Your task to perform on an android device: Add logitech g933 to the cart on bestbuy.com, then select checkout. Image 0: 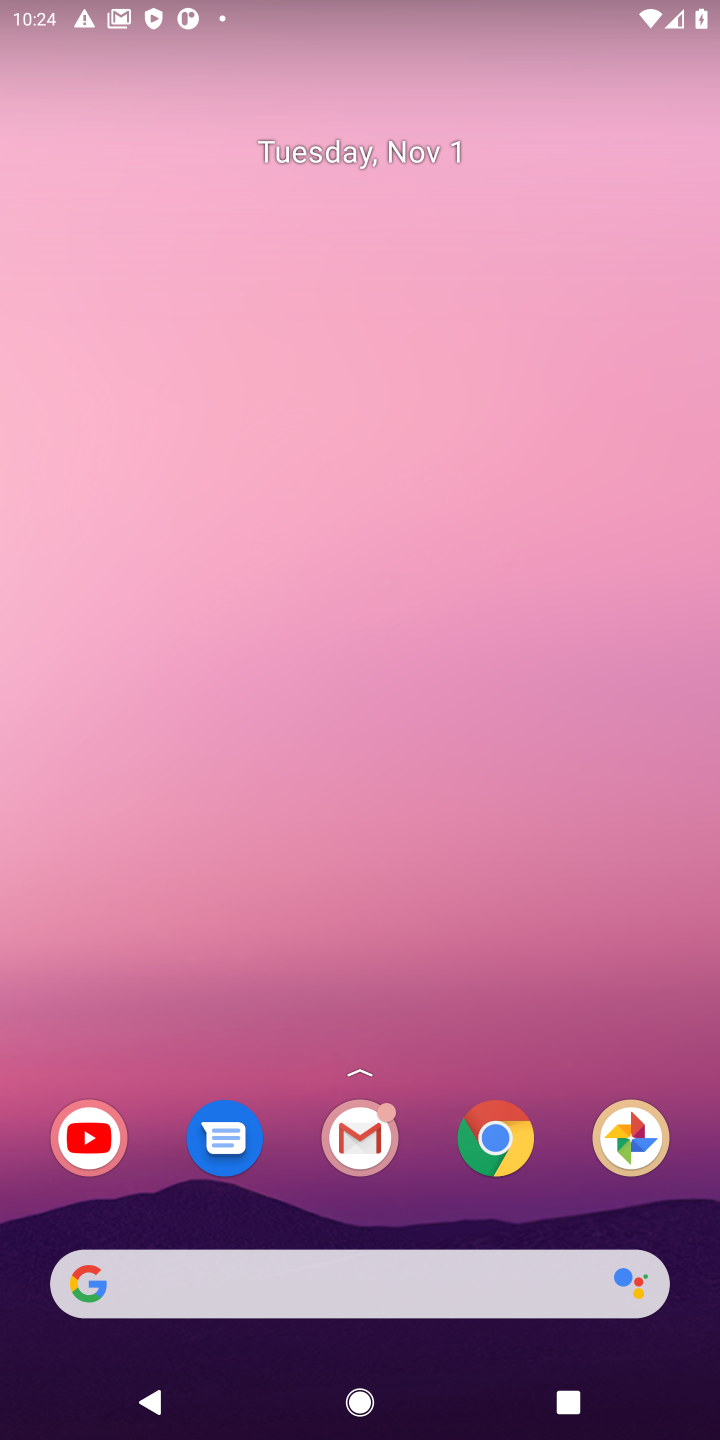
Step 0: click (508, 1147)
Your task to perform on an android device: Add logitech g933 to the cart on bestbuy.com, then select checkout. Image 1: 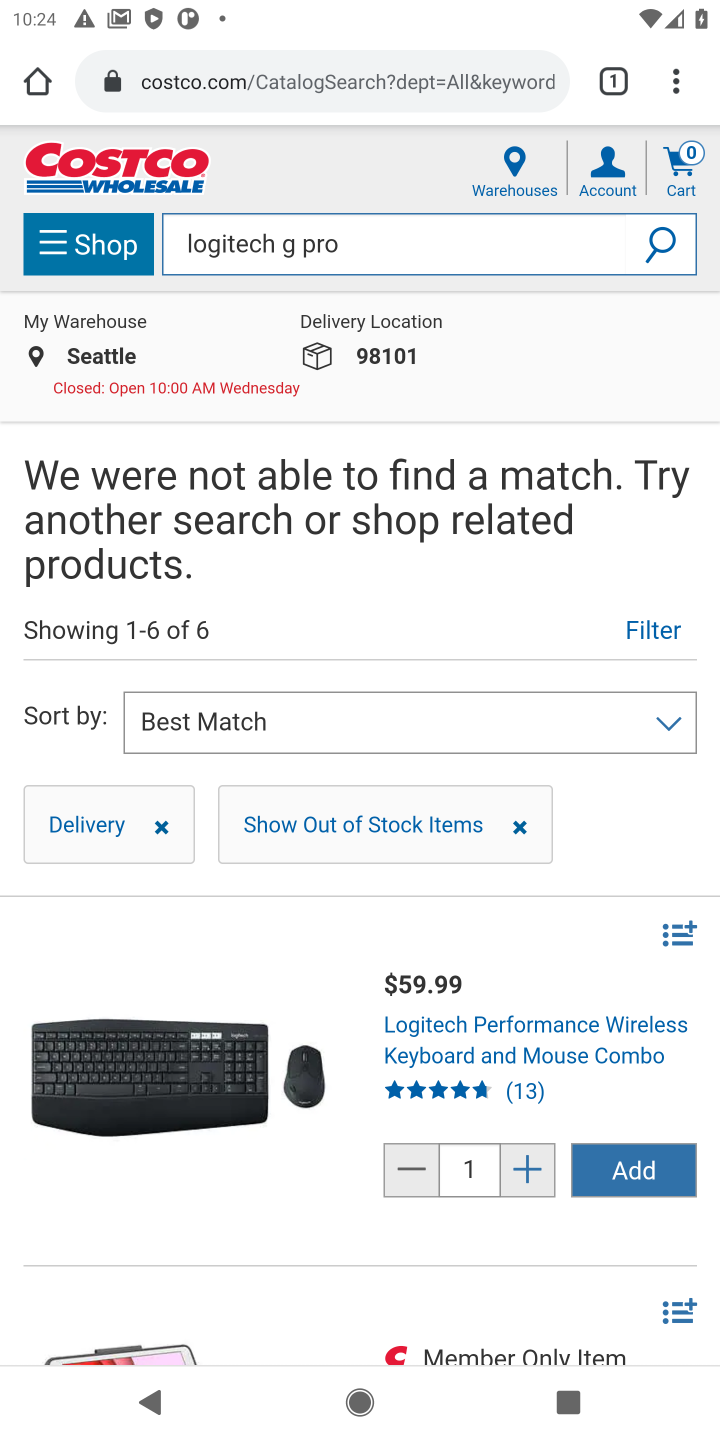
Step 1: click (270, 79)
Your task to perform on an android device: Add logitech g933 to the cart on bestbuy.com, then select checkout. Image 2: 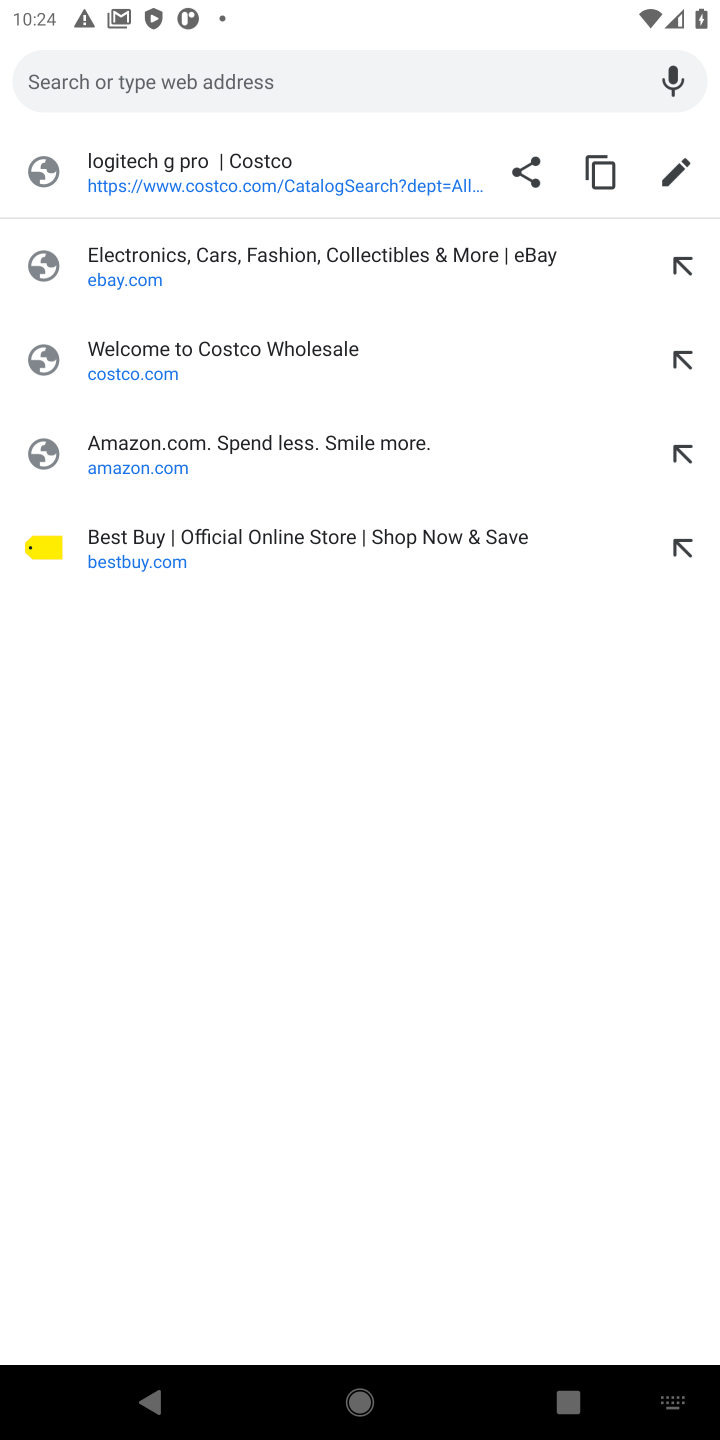
Step 2: type "bestbuy.com"
Your task to perform on an android device: Add logitech g933 to the cart on bestbuy.com, then select checkout. Image 3: 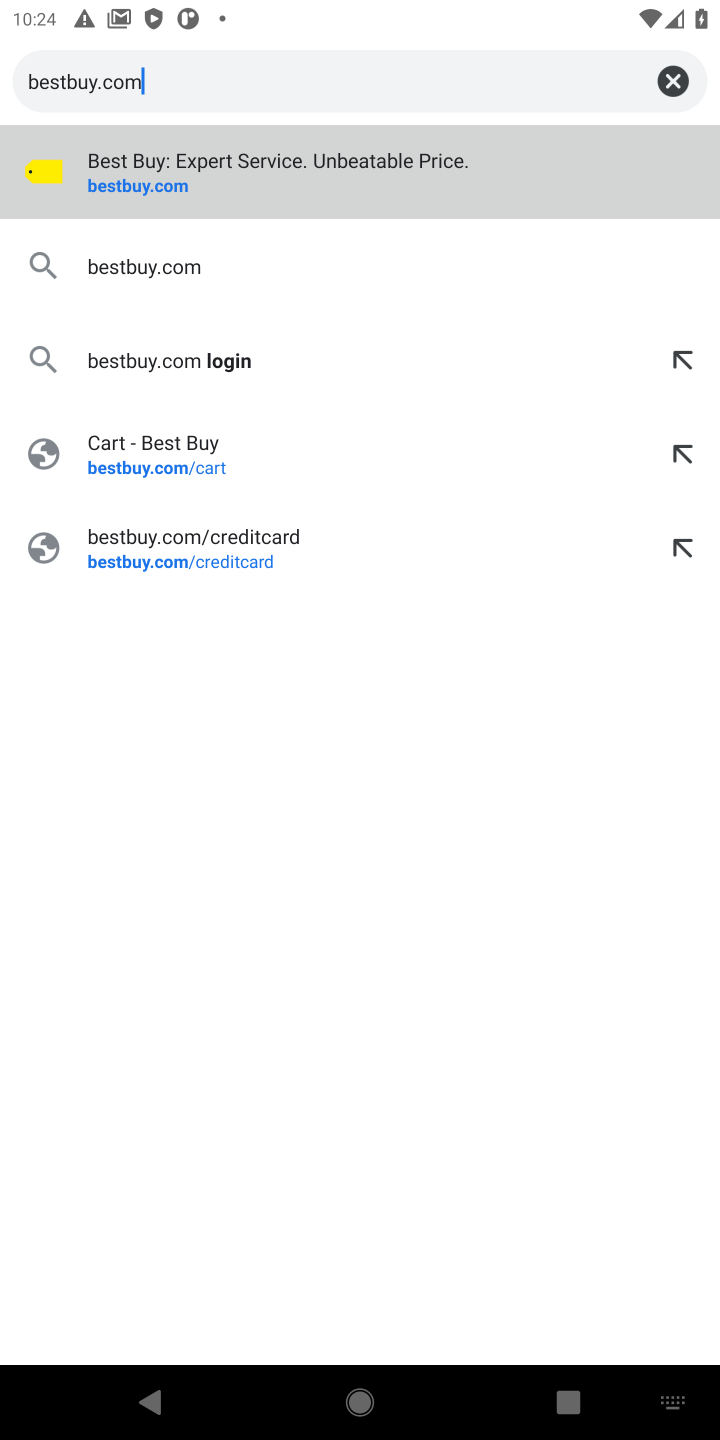
Step 3: click (166, 195)
Your task to perform on an android device: Add logitech g933 to the cart on bestbuy.com, then select checkout. Image 4: 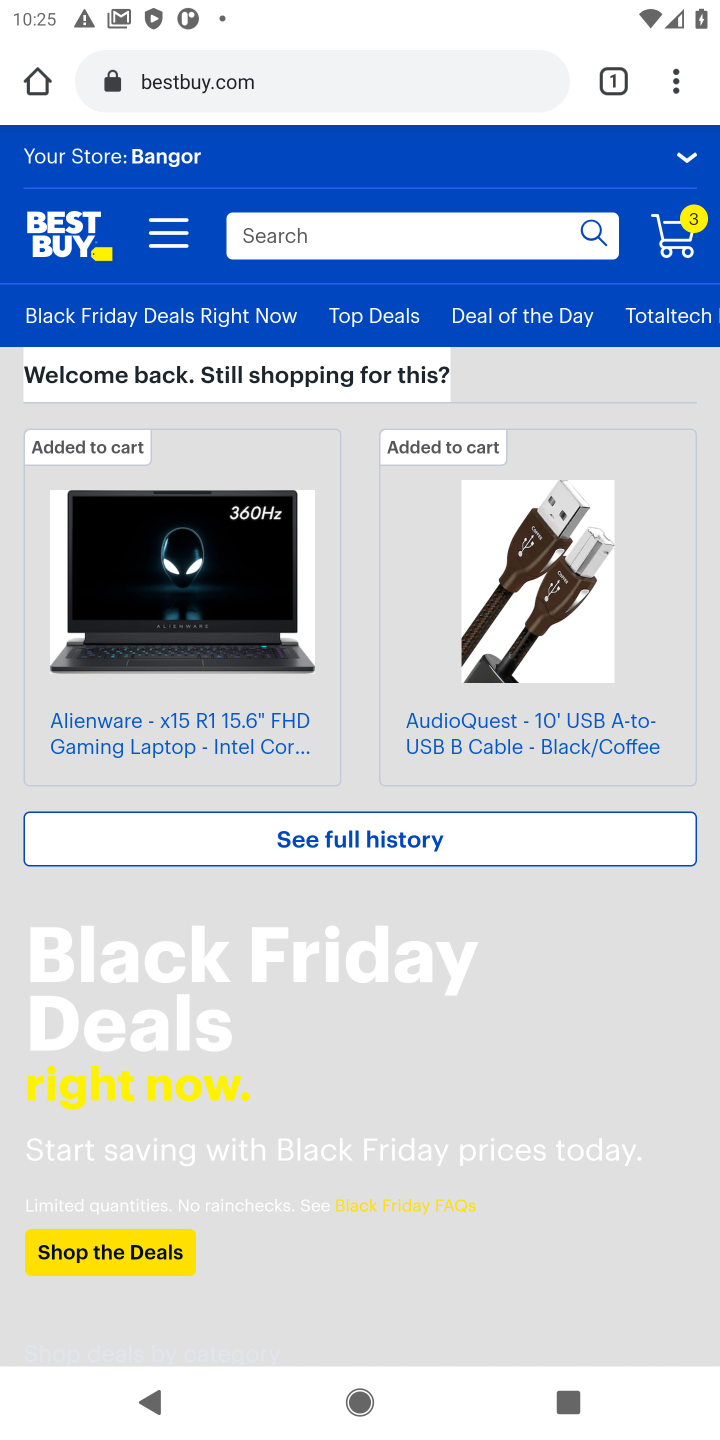
Step 4: click (347, 229)
Your task to perform on an android device: Add logitech g933 to the cart on bestbuy.com, then select checkout. Image 5: 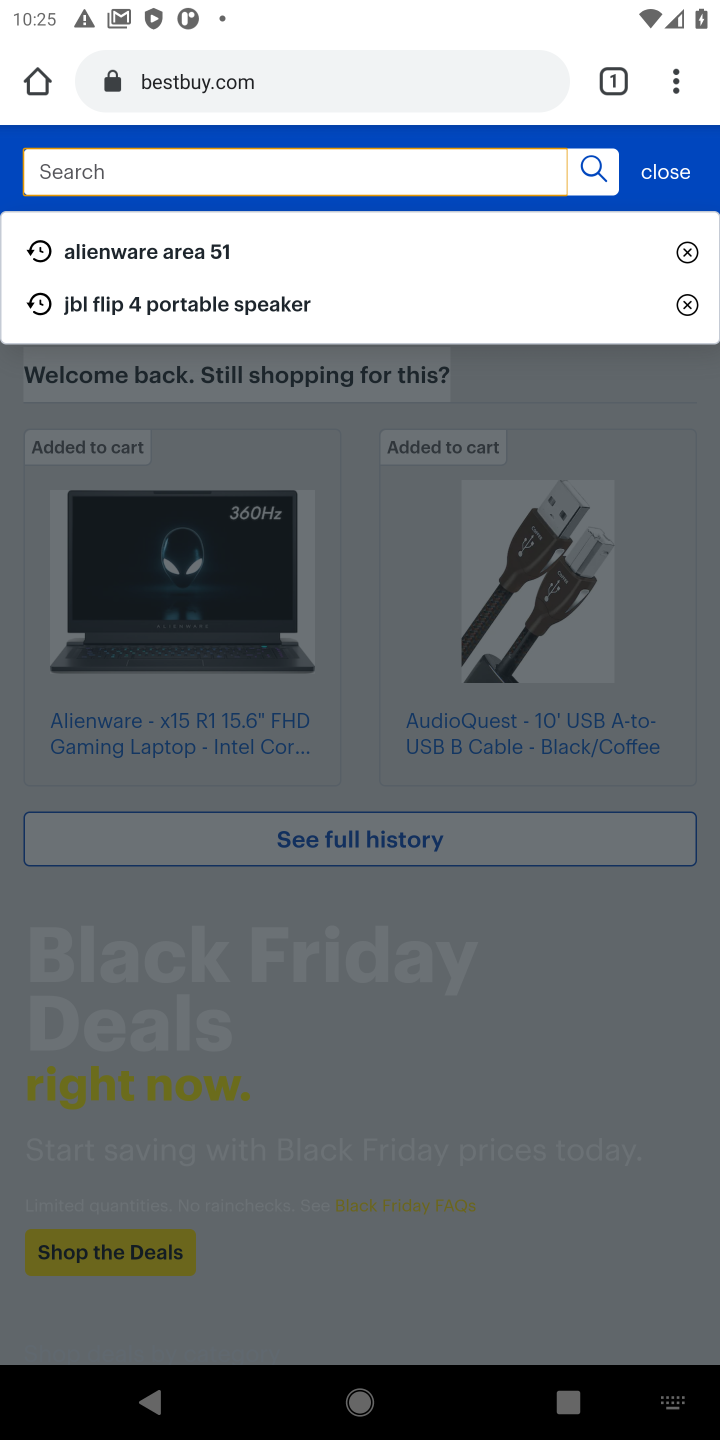
Step 5: type "logitech g933"
Your task to perform on an android device: Add logitech g933 to the cart on bestbuy.com, then select checkout. Image 6: 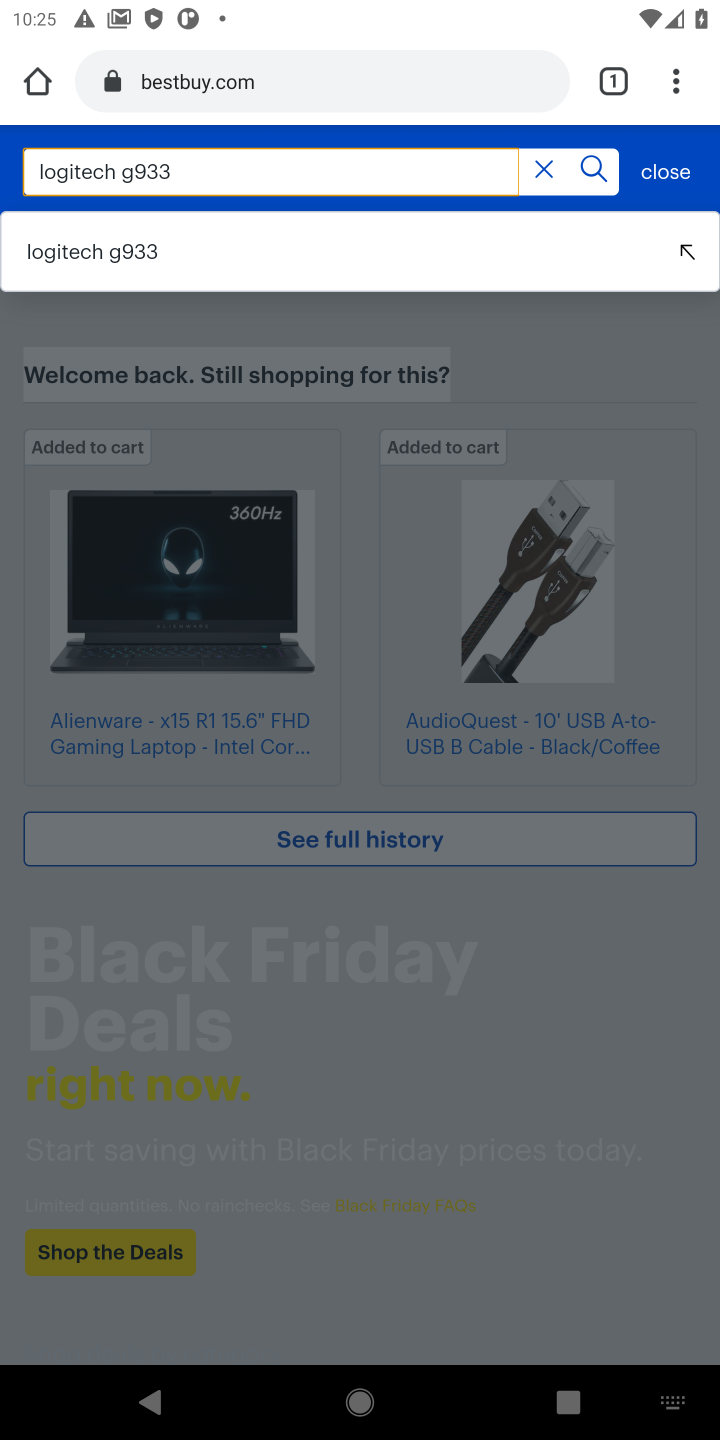
Step 6: click (130, 254)
Your task to perform on an android device: Add logitech g933 to the cart on bestbuy.com, then select checkout. Image 7: 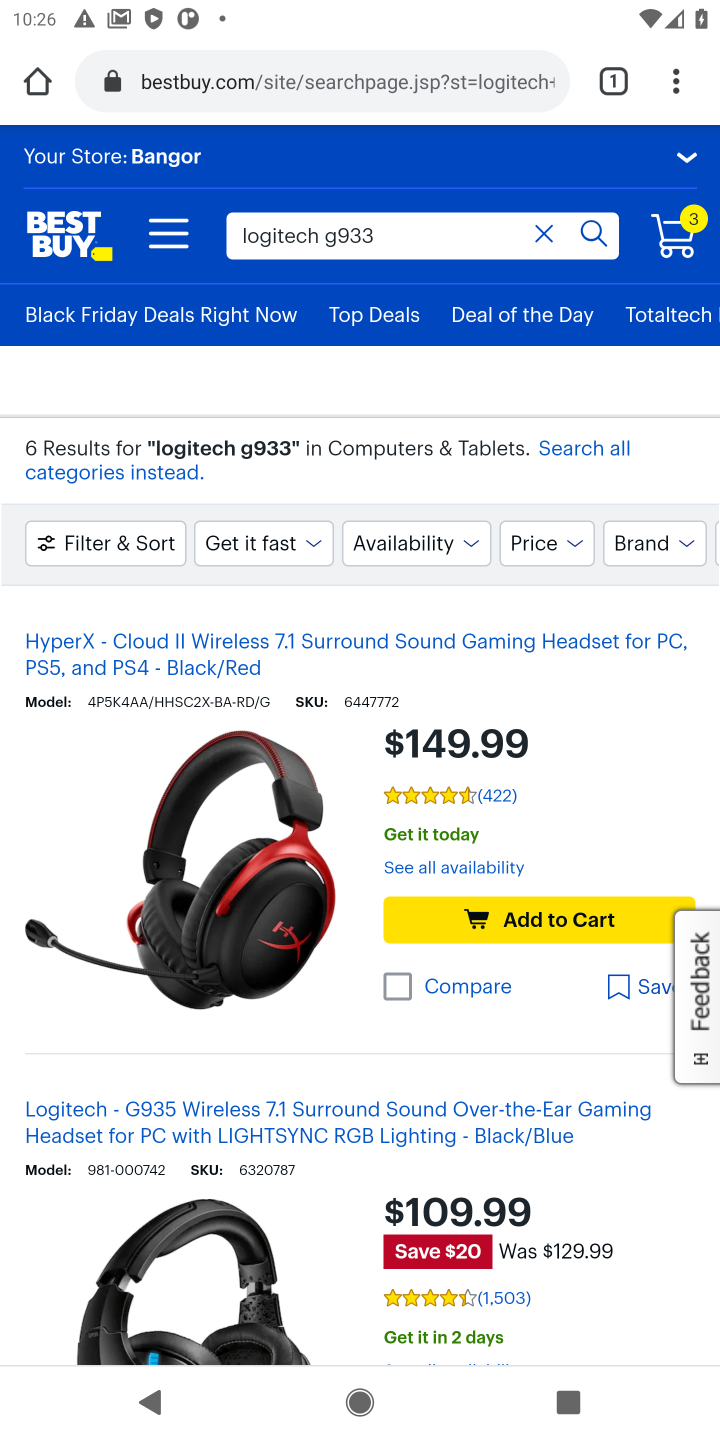
Step 7: click (217, 903)
Your task to perform on an android device: Add logitech g933 to the cart on bestbuy.com, then select checkout. Image 8: 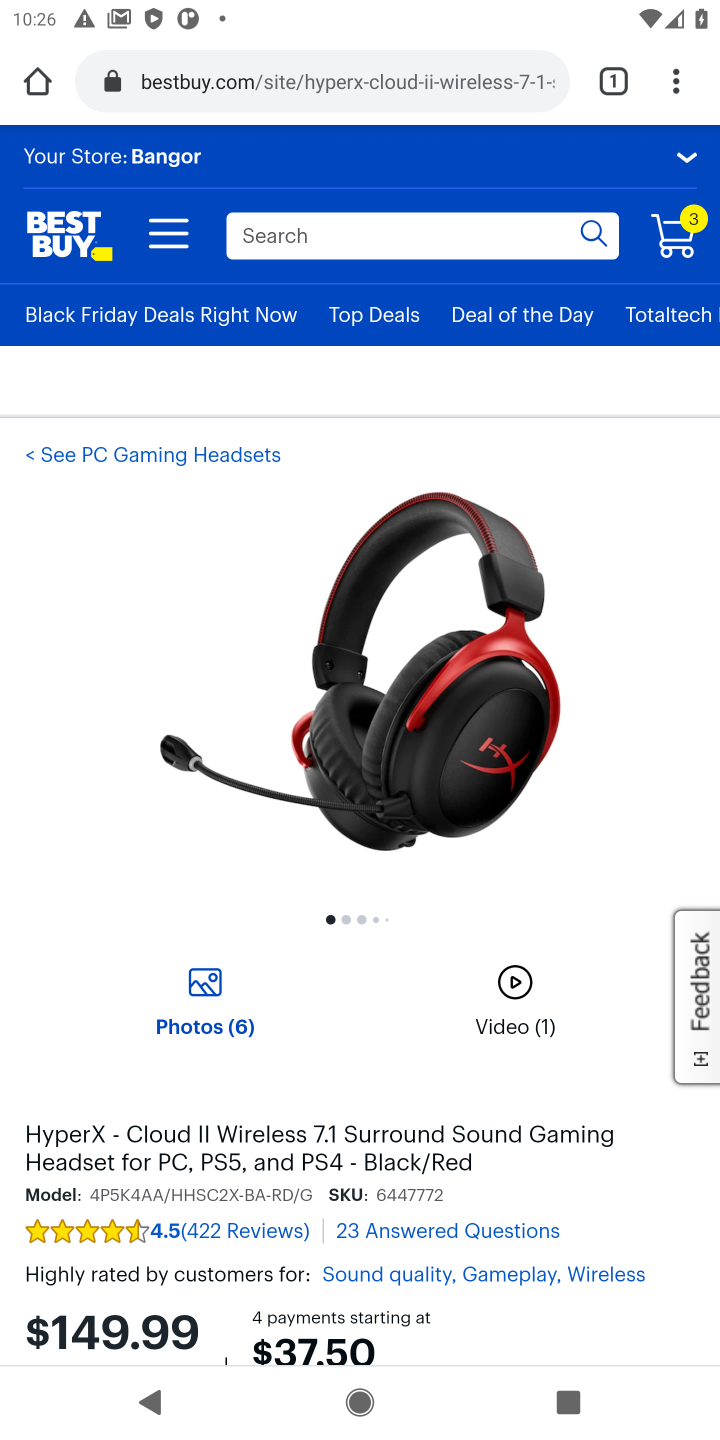
Step 8: task complete